Your task to perform on an android device: View the shopping cart on amazon. Search for "logitech g933" on amazon, select the first entry, add it to the cart, then select checkout. Image 0: 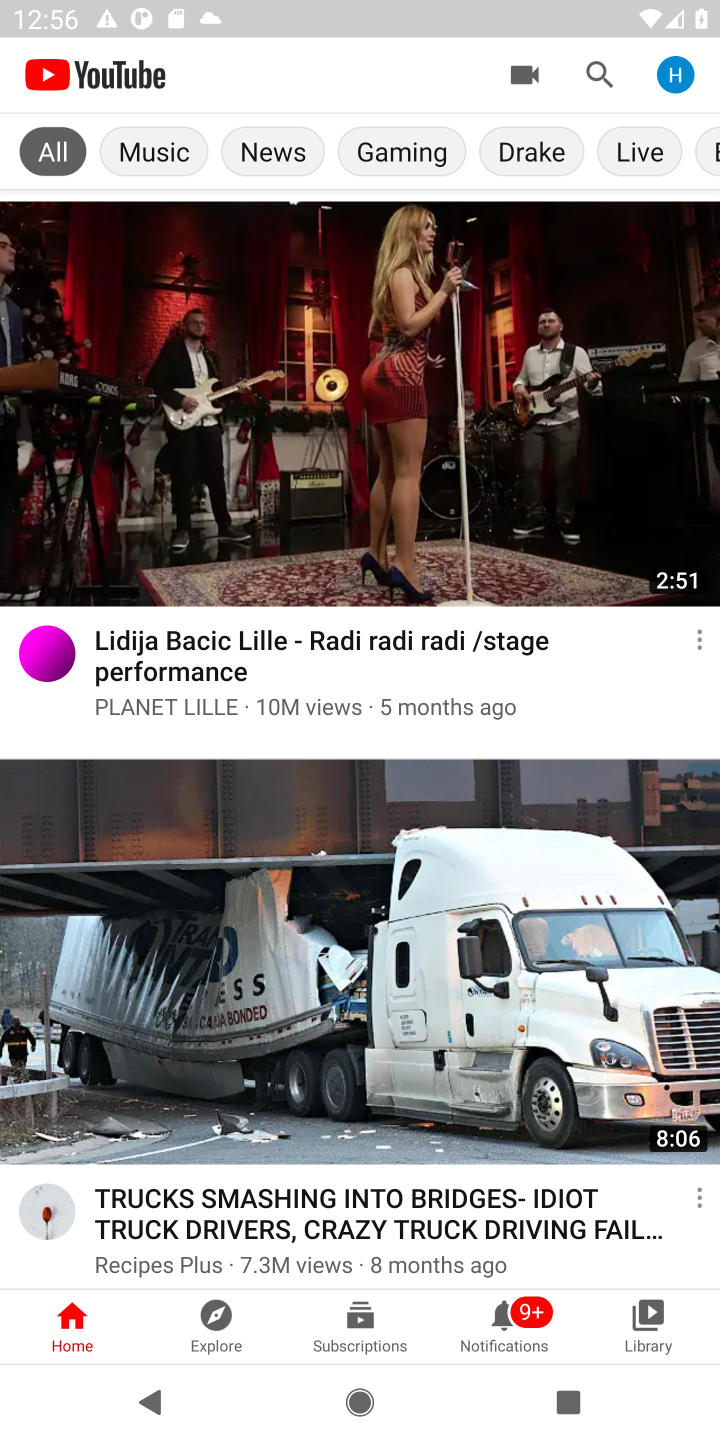
Step 0: press home button
Your task to perform on an android device: View the shopping cart on amazon. Search for "logitech g933" on amazon, select the first entry, add it to the cart, then select checkout. Image 1: 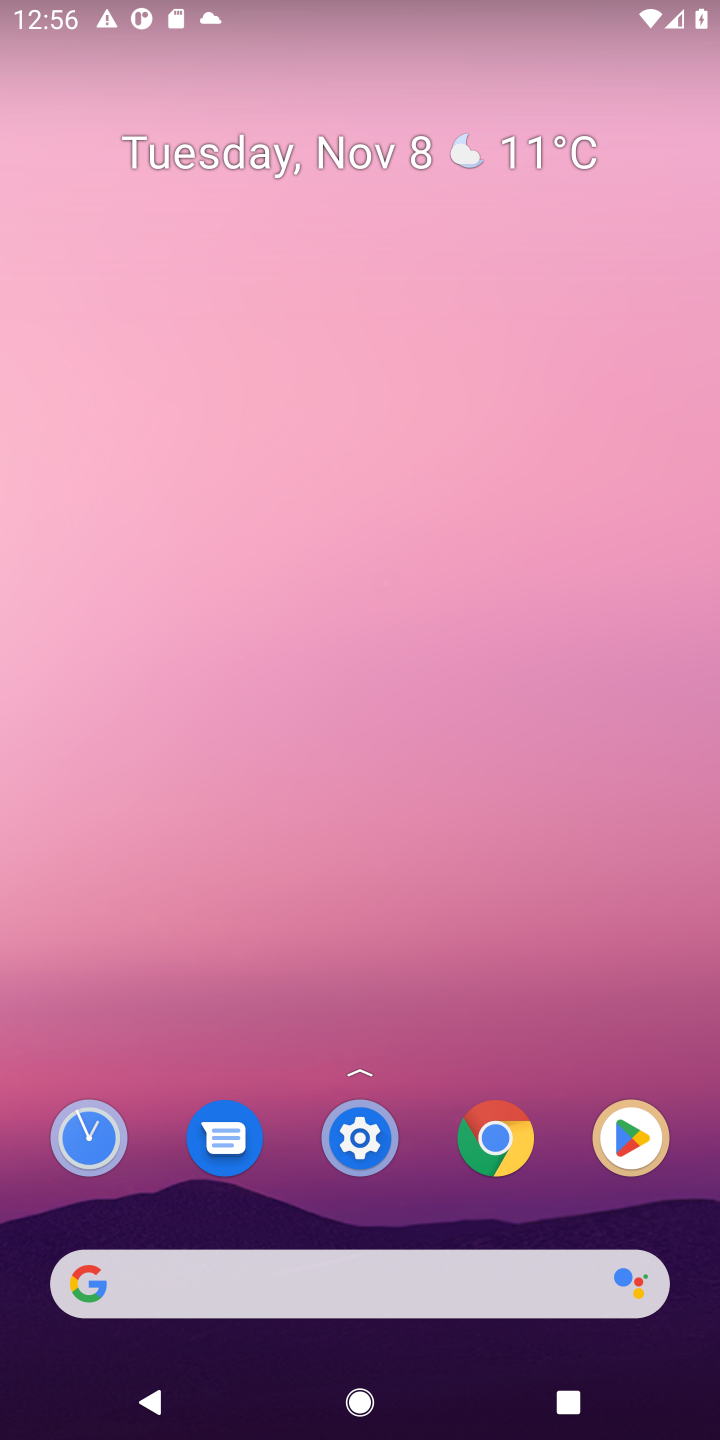
Step 1: click (381, 1222)
Your task to perform on an android device: View the shopping cart on amazon. Search for "logitech g933" on amazon, select the first entry, add it to the cart, then select checkout. Image 2: 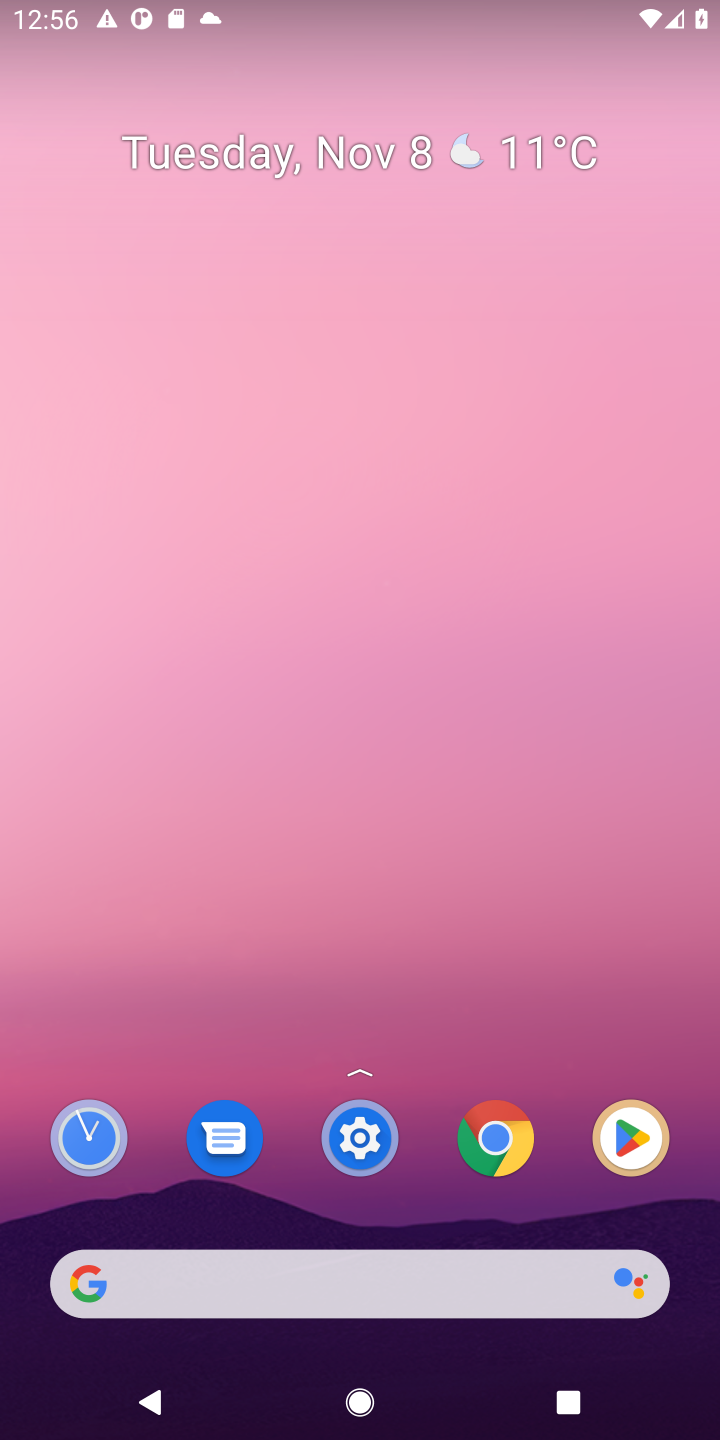
Step 2: click (339, 1273)
Your task to perform on an android device: View the shopping cart on amazon. Search for "logitech g933" on amazon, select the first entry, add it to the cart, then select checkout. Image 3: 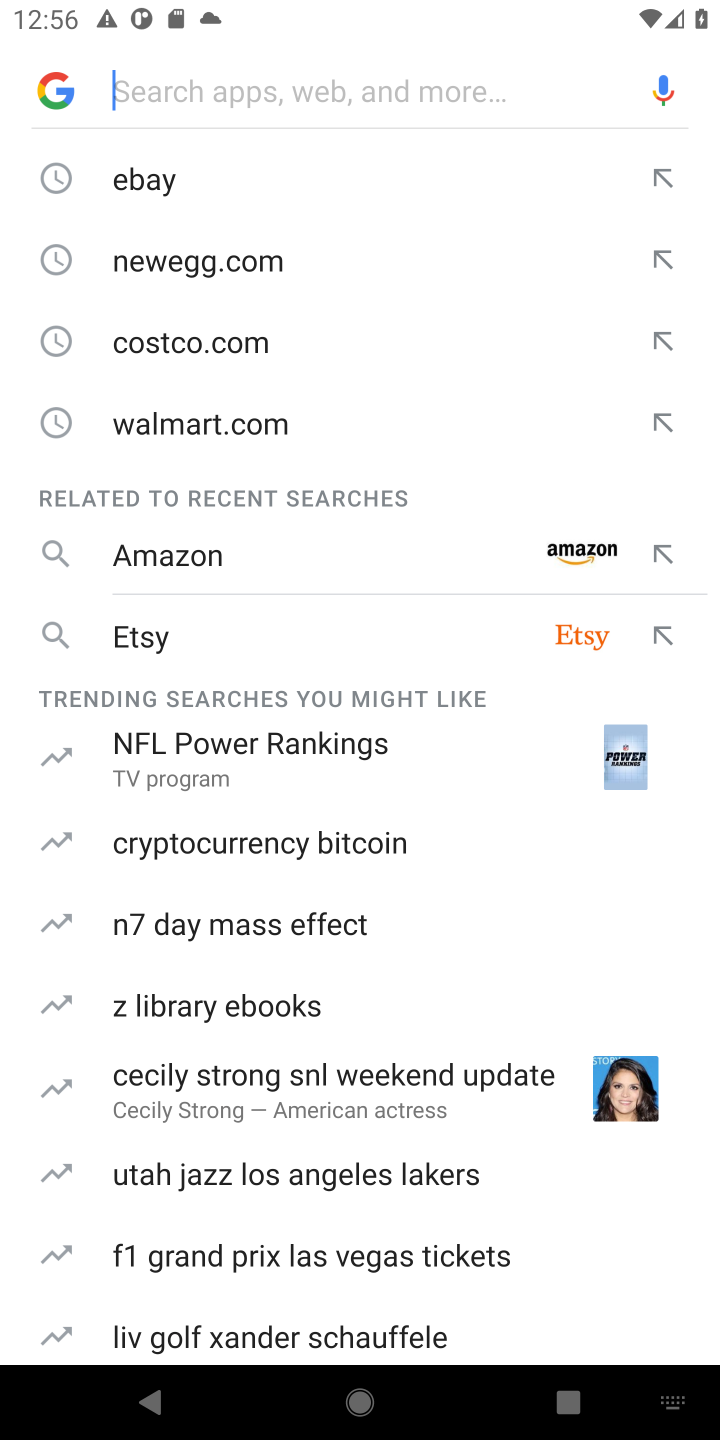
Step 3: click (183, 545)
Your task to perform on an android device: View the shopping cart on amazon. Search for "logitech g933" on amazon, select the first entry, add it to the cart, then select checkout. Image 4: 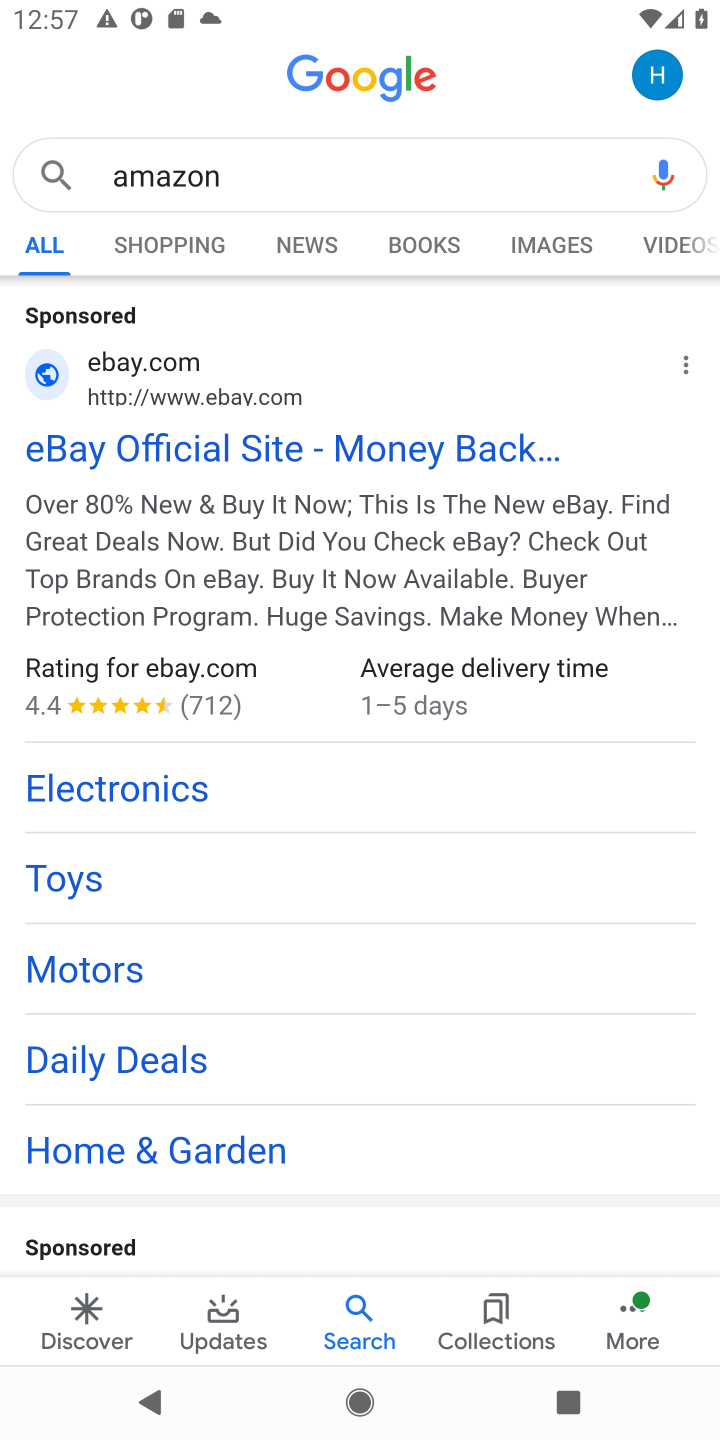
Step 4: click (162, 464)
Your task to perform on an android device: View the shopping cart on amazon. Search for "logitech g933" on amazon, select the first entry, add it to the cart, then select checkout. Image 5: 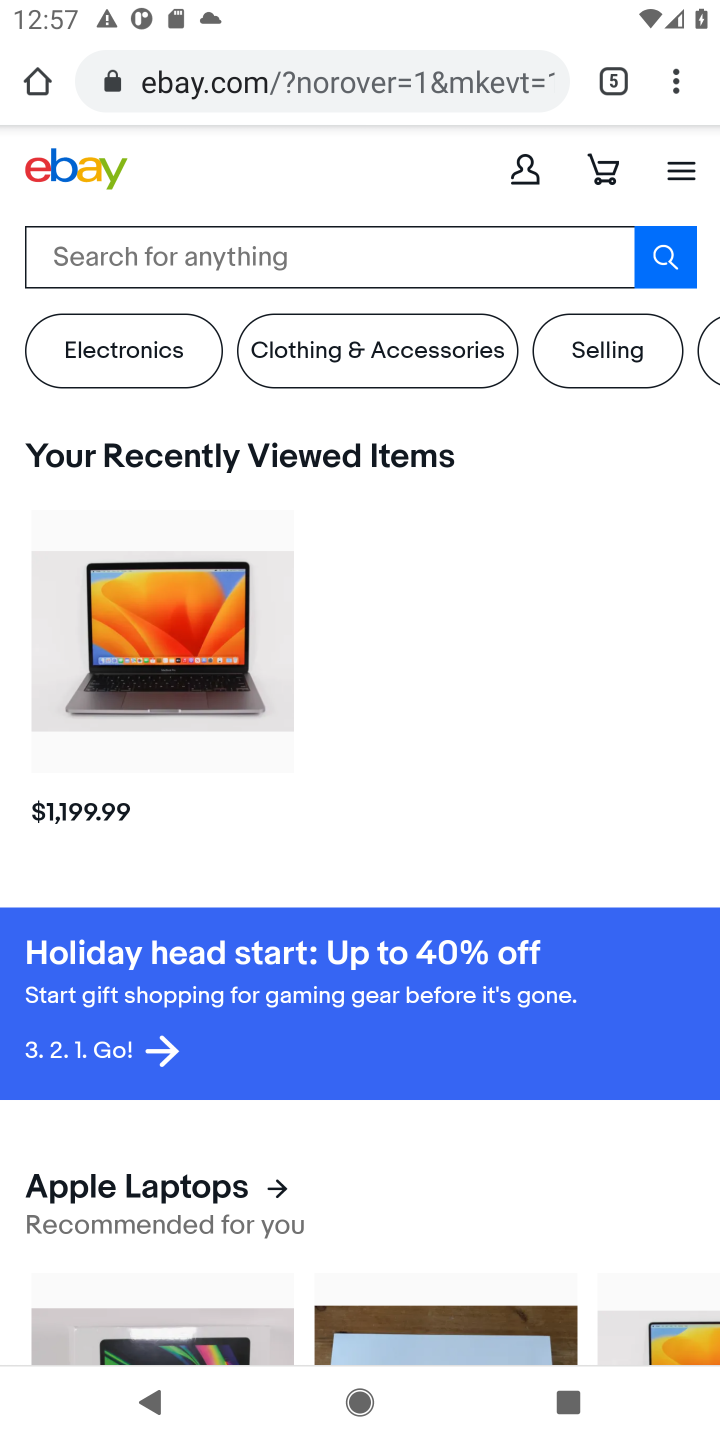
Step 5: click (291, 249)
Your task to perform on an android device: View the shopping cart on amazon. Search for "logitech g933" on amazon, select the first entry, add it to the cart, then select checkout. Image 6: 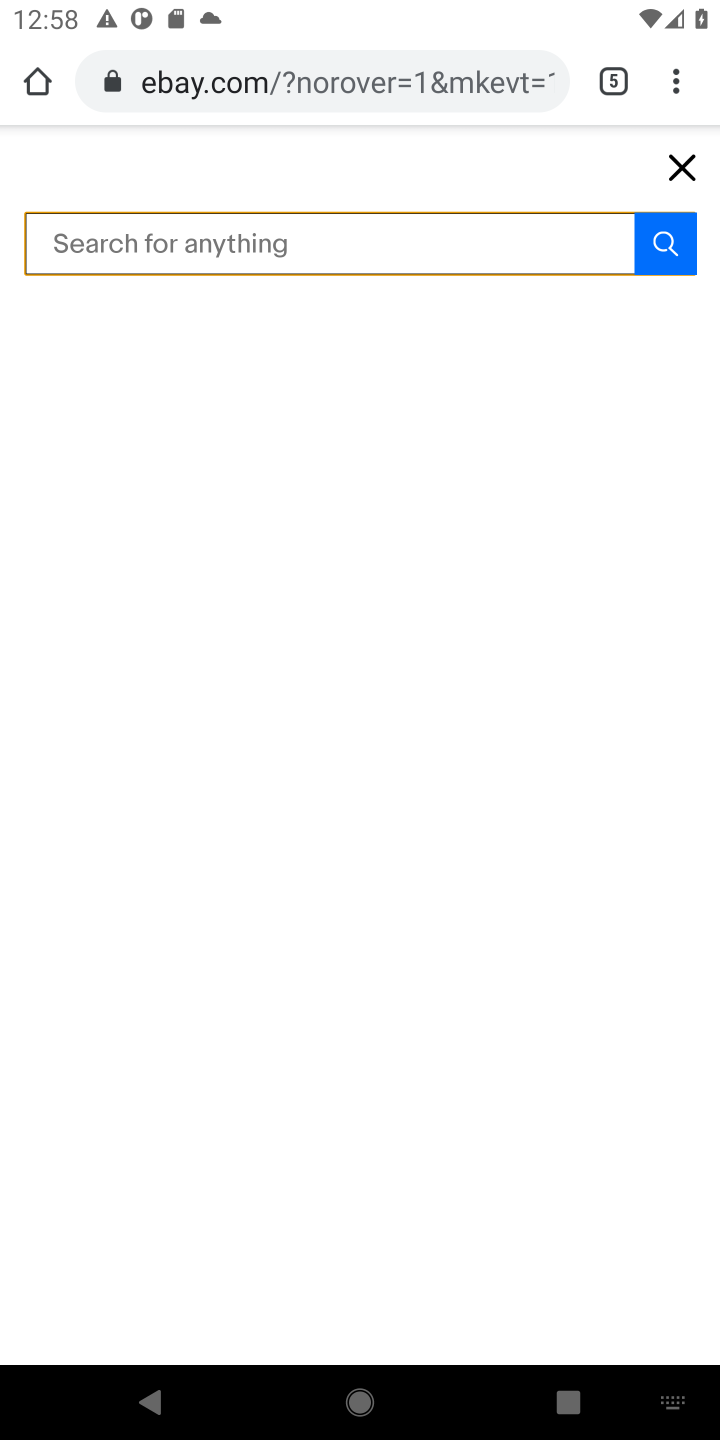
Step 6: click (181, 257)
Your task to perform on an android device: View the shopping cart on amazon. Search for "logitech g933" on amazon, select the first entry, add it to the cart, then select checkout. Image 7: 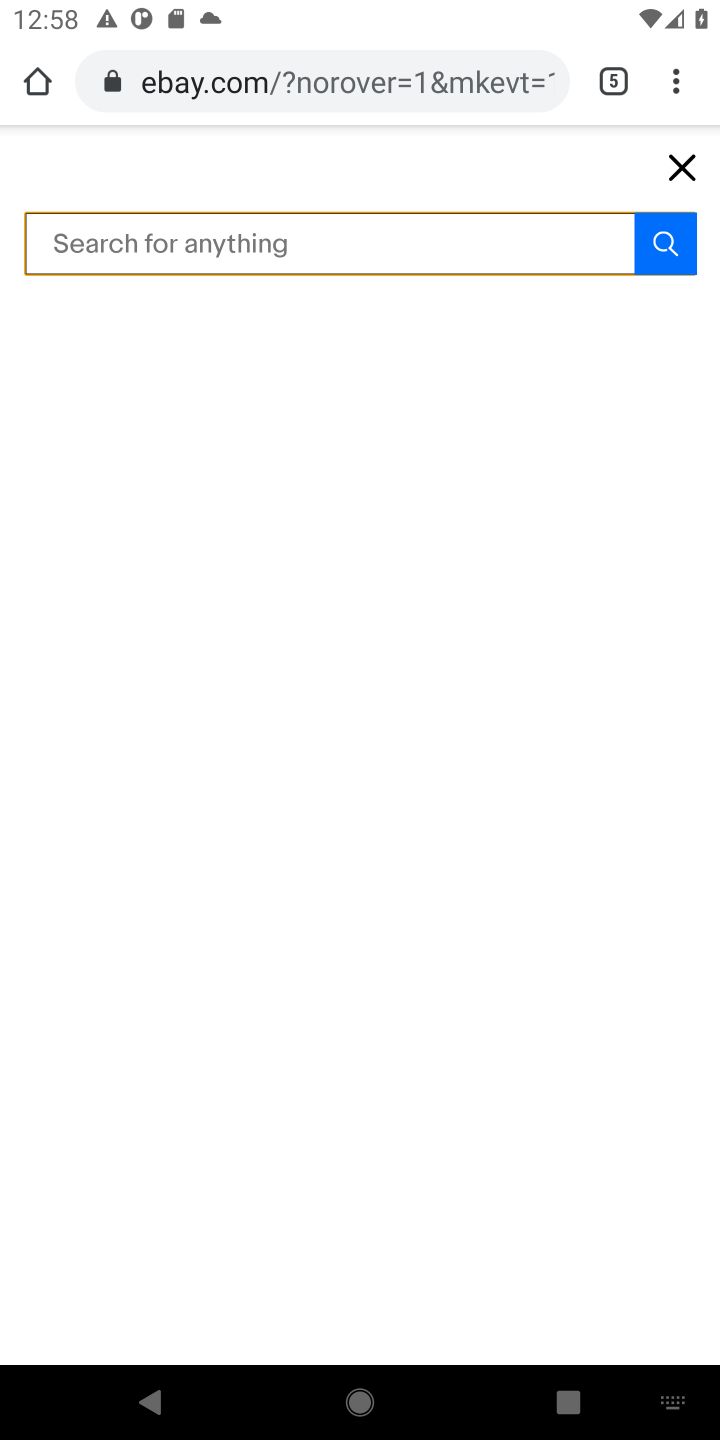
Step 7: task complete